Your task to perform on an android device: find which apps use the phone's location Image 0: 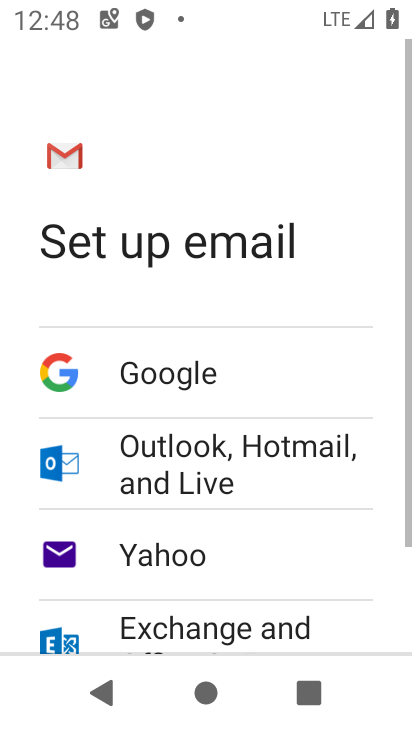
Step 0: press home button
Your task to perform on an android device: find which apps use the phone's location Image 1: 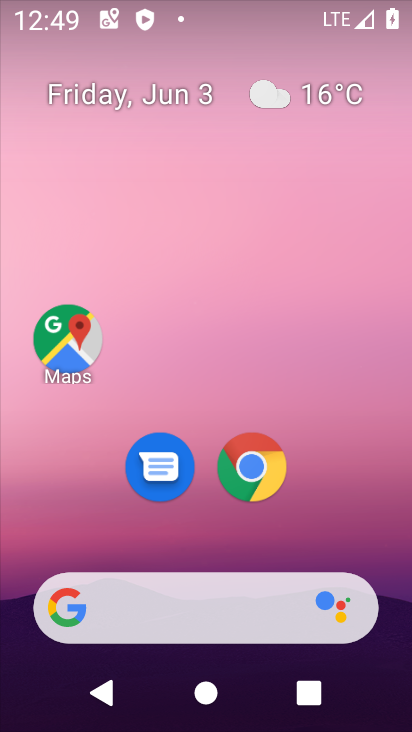
Step 1: drag from (184, 559) to (249, 212)
Your task to perform on an android device: find which apps use the phone's location Image 2: 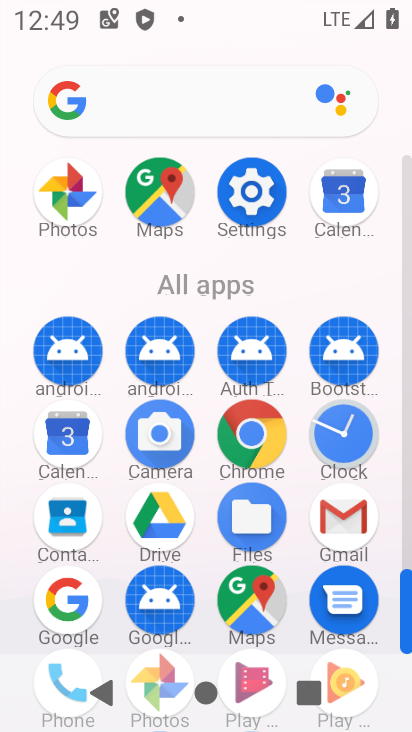
Step 2: drag from (187, 633) to (282, 327)
Your task to perform on an android device: find which apps use the phone's location Image 3: 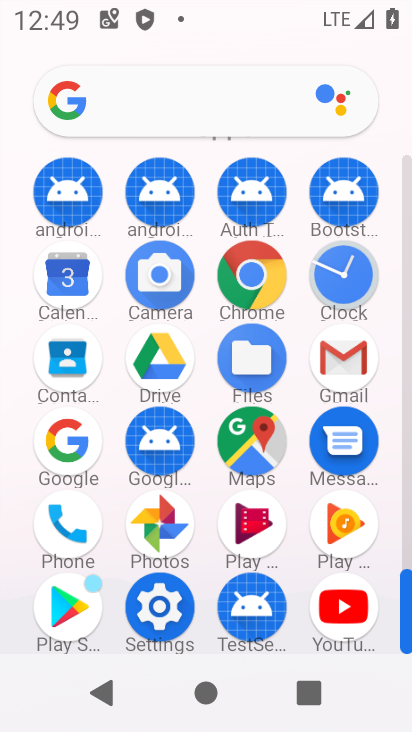
Step 3: click (172, 609)
Your task to perform on an android device: find which apps use the phone's location Image 4: 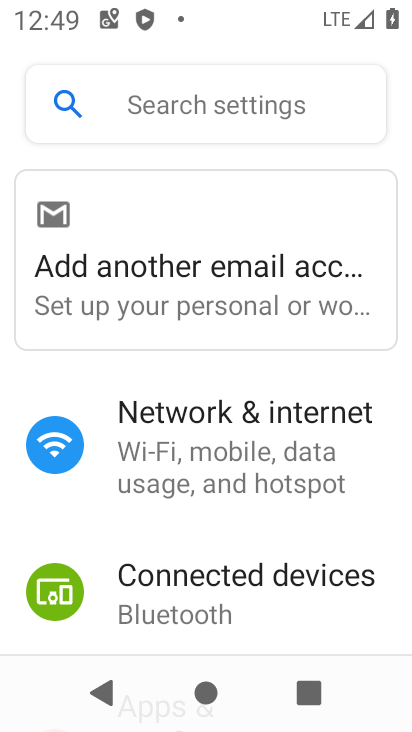
Step 4: click (361, 167)
Your task to perform on an android device: find which apps use the phone's location Image 5: 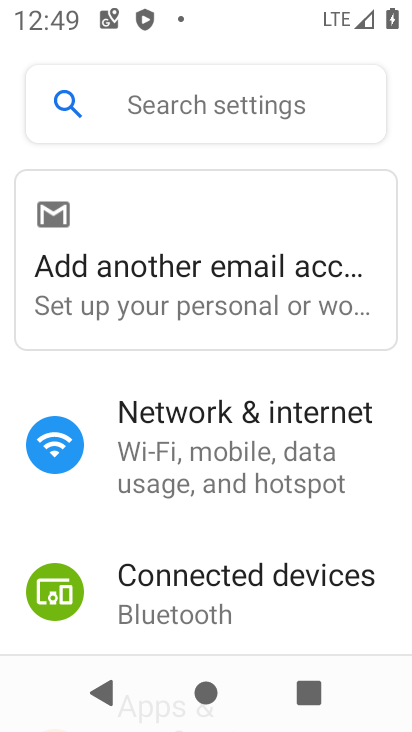
Step 5: drag from (215, 700) to (356, 192)
Your task to perform on an android device: find which apps use the phone's location Image 6: 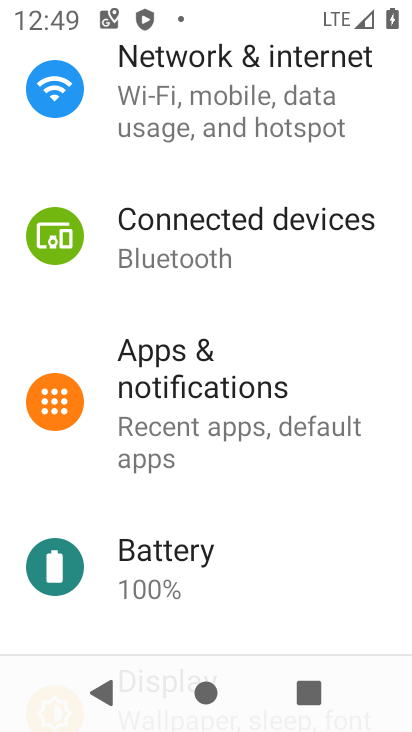
Step 6: drag from (238, 562) to (348, 133)
Your task to perform on an android device: find which apps use the phone's location Image 7: 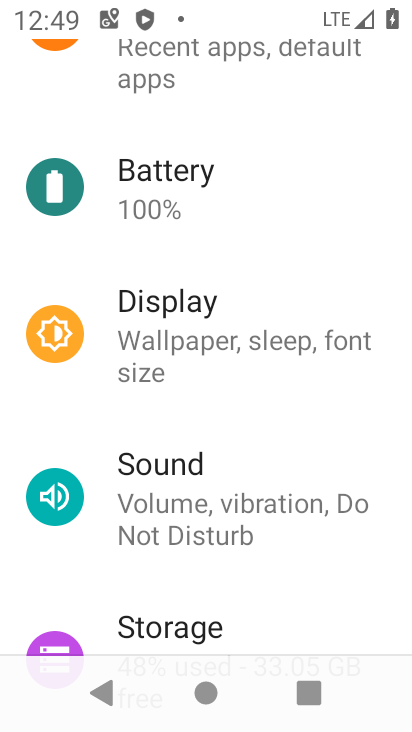
Step 7: drag from (232, 559) to (321, 232)
Your task to perform on an android device: find which apps use the phone's location Image 8: 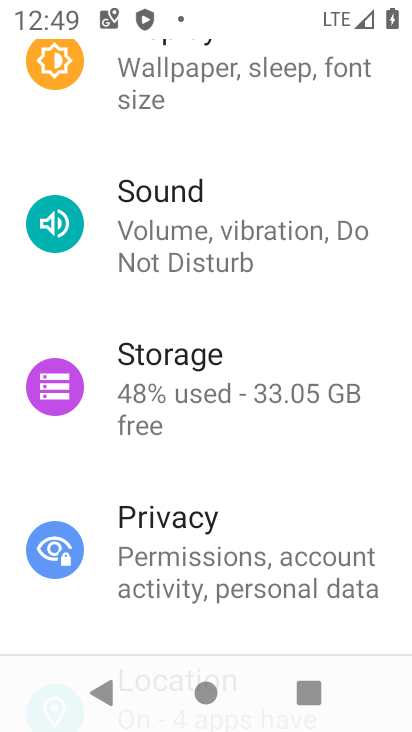
Step 8: drag from (179, 615) to (263, 227)
Your task to perform on an android device: find which apps use the phone's location Image 9: 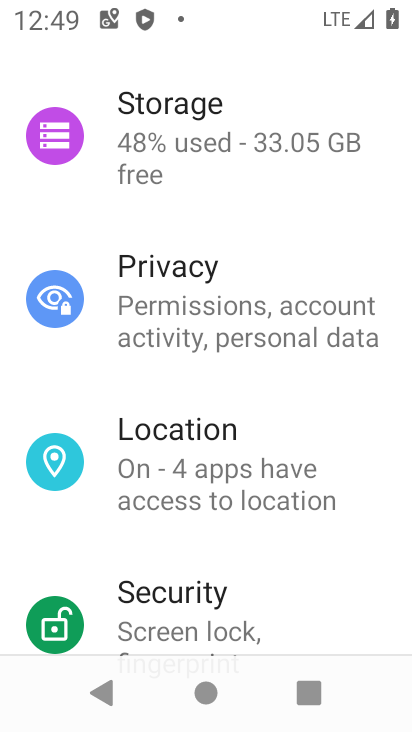
Step 9: click (227, 446)
Your task to perform on an android device: find which apps use the phone's location Image 10: 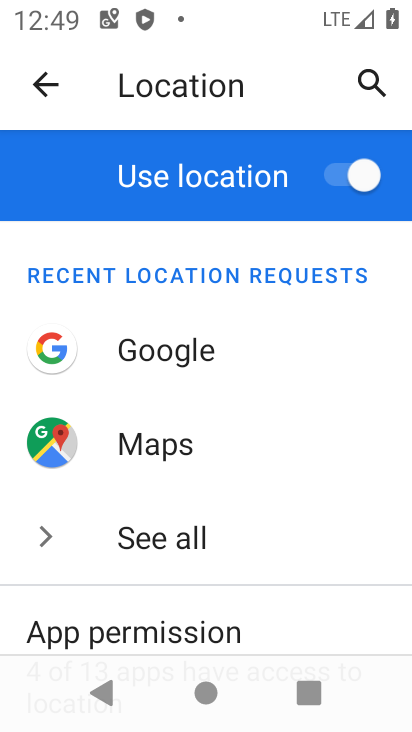
Step 10: drag from (224, 597) to (294, 315)
Your task to perform on an android device: find which apps use the phone's location Image 11: 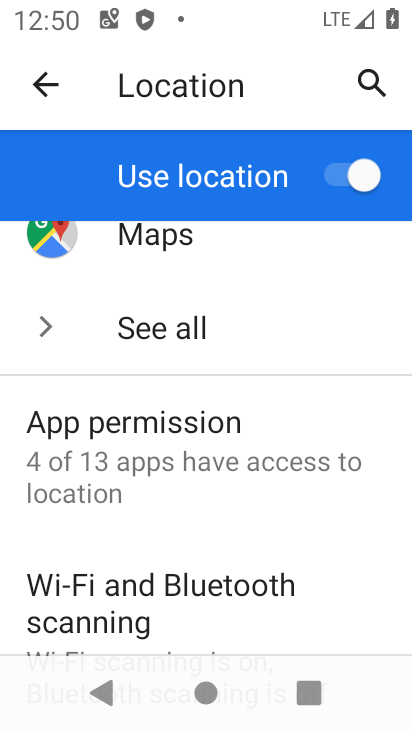
Step 11: click (222, 467)
Your task to perform on an android device: find which apps use the phone's location Image 12: 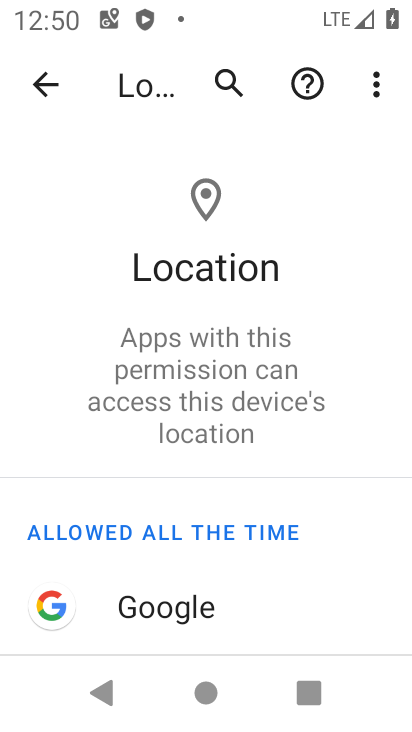
Step 12: task complete